Your task to perform on an android device: empty trash in google photos Image 0: 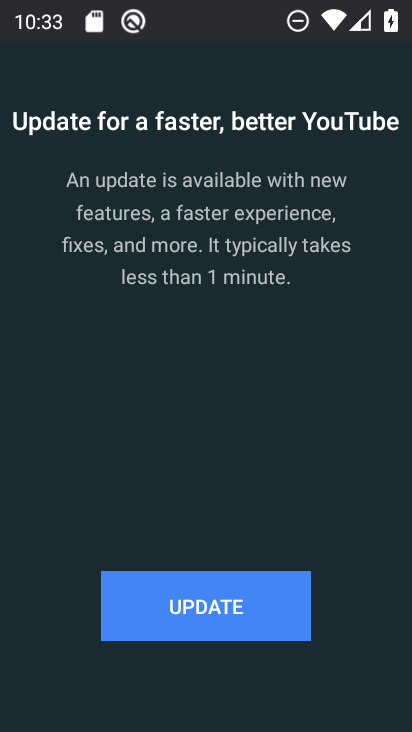
Step 0: press home button
Your task to perform on an android device: empty trash in google photos Image 1: 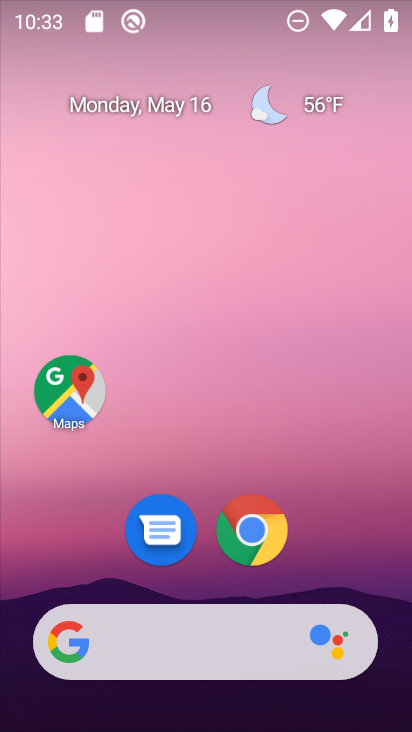
Step 1: drag from (157, 607) to (150, 140)
Your task to perform on an android device: empty trash in google photos Image 2: 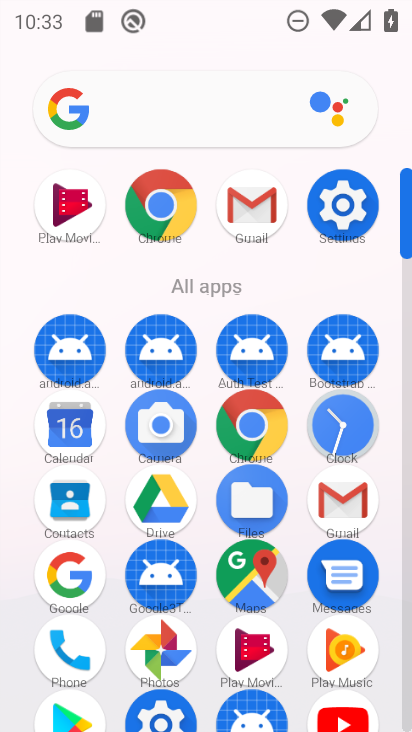
Step 2: click (163, 631)
Your task to perform on an android device: empty trash in google photos Image 3: 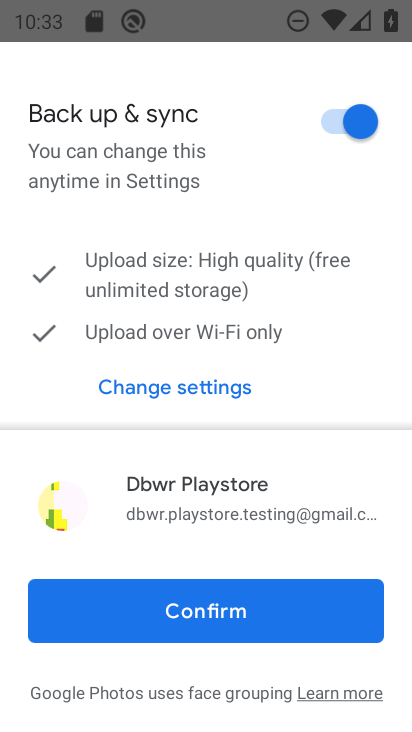
Step 3: click (251, 596)
Your task to perform on an android device: empty trash in google photos Image 4: 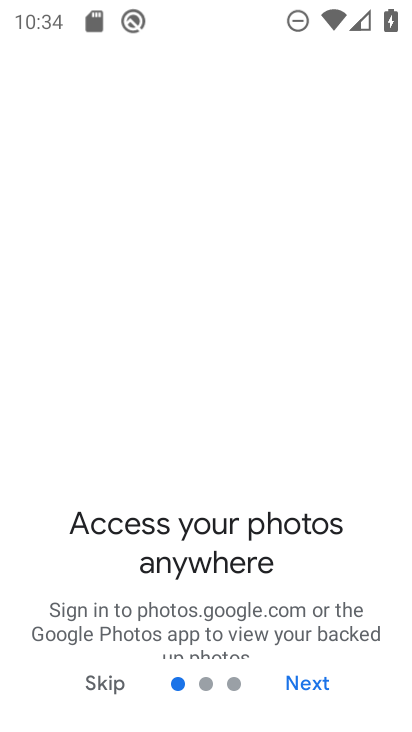
Step 4: click (289, 686)
Your task to perform on an android device: empty trash in google photos Image 5: 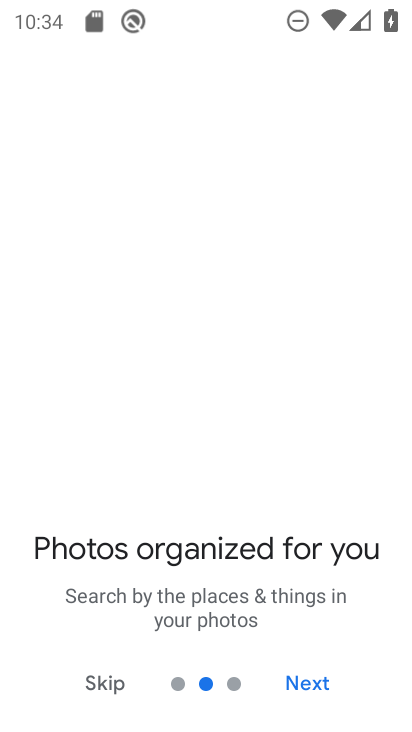
Step 5: click (289, 686)
Your task to perform on an android device: empty trash in google photos Image 6: 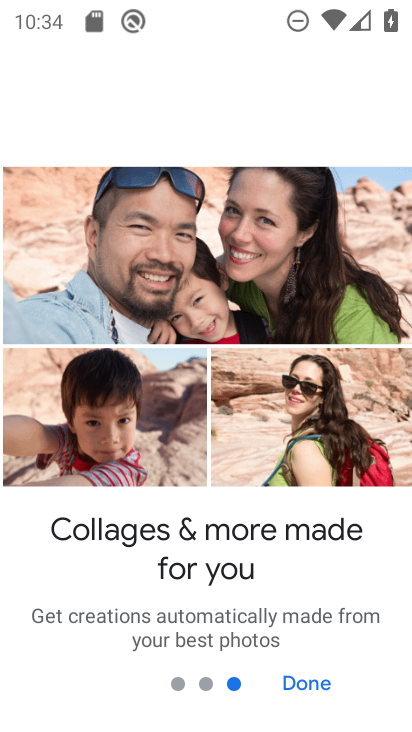
Step 6: click (295, 683)
Your task to perform on an android device: empty trash in google photos Image 7: 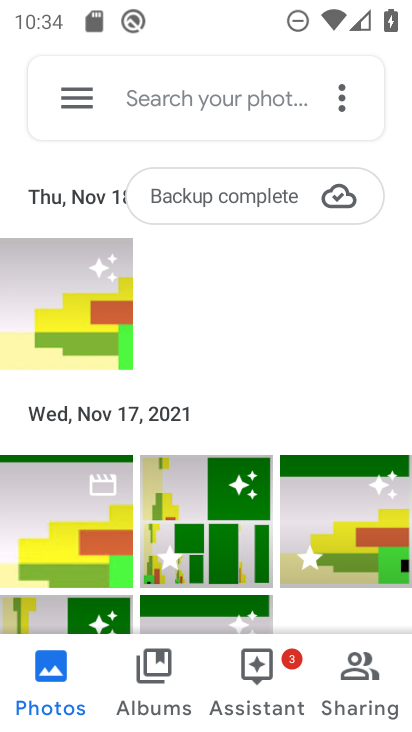
Step 7: click (75, 111)
Your task to perform on an android device: empty trash in google photos Image 8: 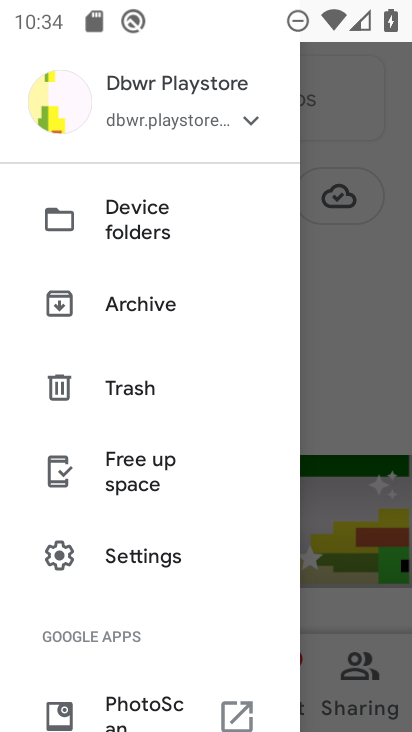
Step 8: click (125, 385)
Your task to perform on an android device: empty trash in google photos Image 9: 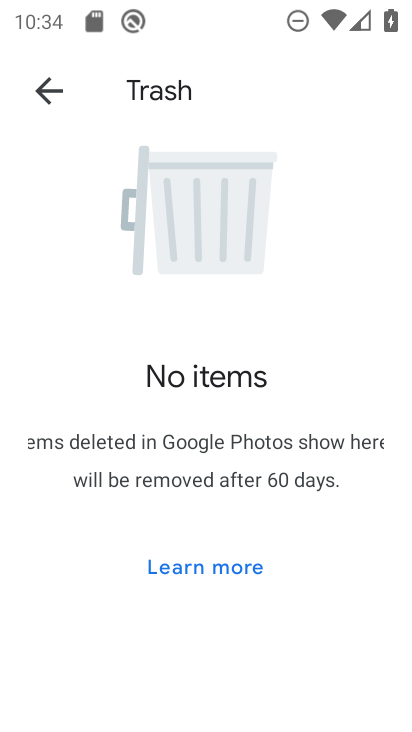
Step 9: task complete